Your task to perform on an android device: clear all cookies in the chrome app Image 0: 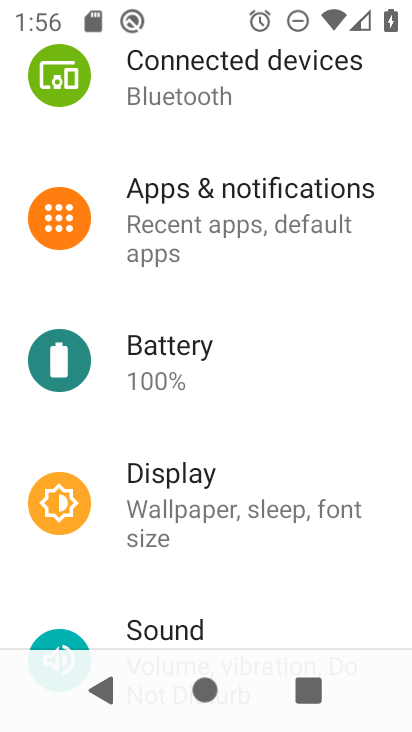
Step 0: press home button
Your task to perform on an android device: clear all cookies in the chrome app Image 1: 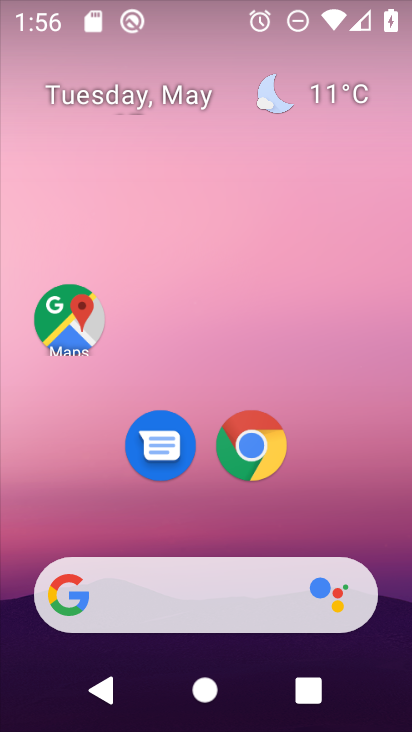
Step 1: click (270, 432)
Your task to perform on an android device: clear all cookies in the chrome app Image 2: 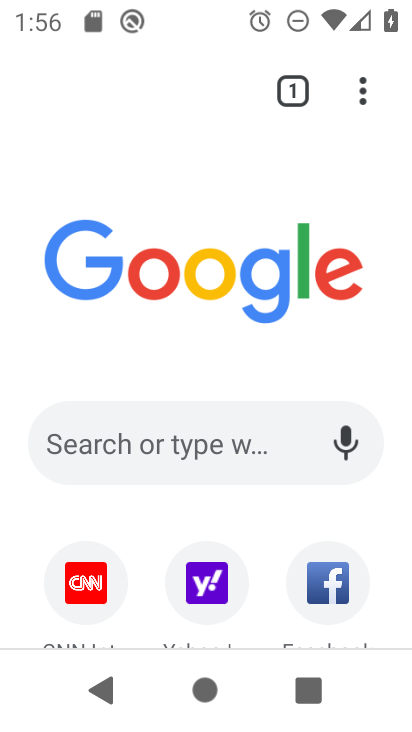
Step 2: click (357, 81)
Your task to perform on an android device: clear all cookies in the chrome app Image 3: 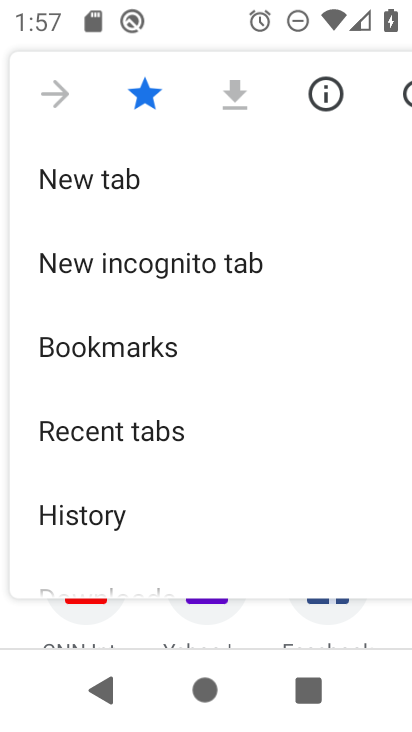
Step 3: drag from (232, 535) to (176, 224)
Your task to perform on an android device: clear all cookies in the chrome app Image 4: 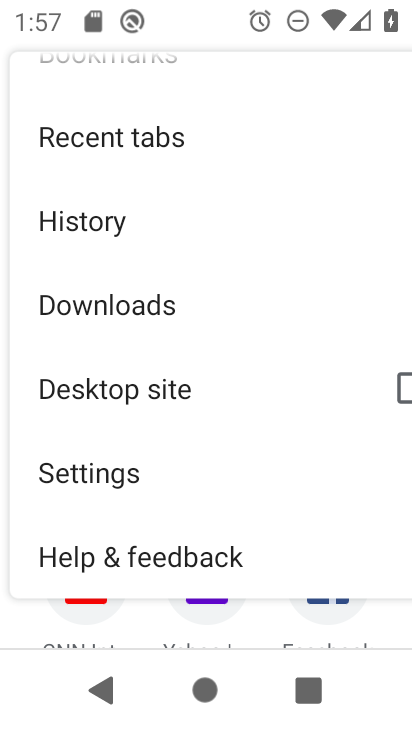
Step 4: click (191, 470)
Your task to perform on an android device: clear all cookies in the chrome app Image 5: 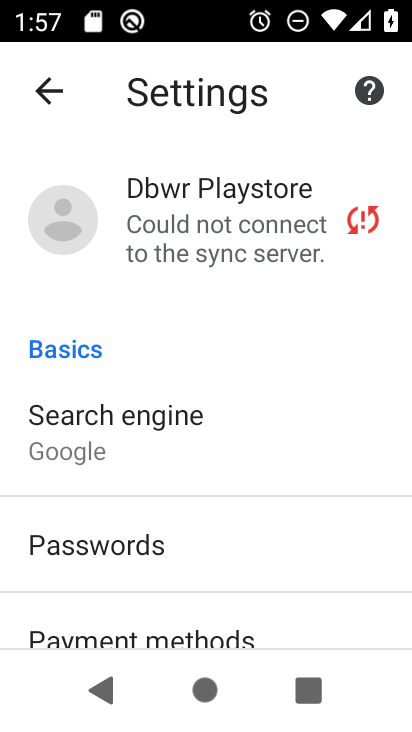
Step 5: drag from (146, 509) to (145, 25)
Your task to perform on an android device: clear all cookies in the chrome app Image 6: 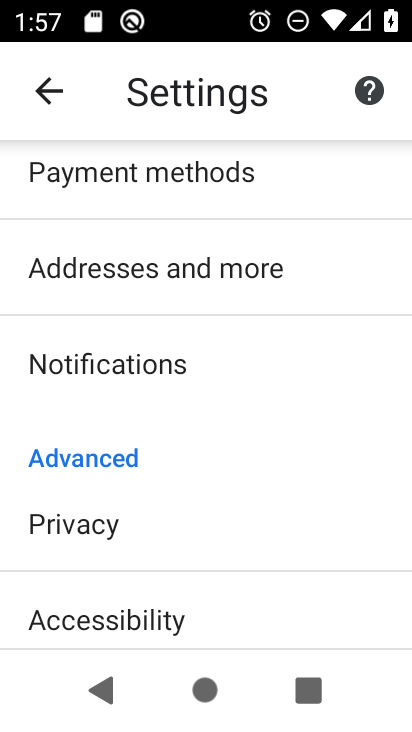
Step 6: click (155, 532)
Your task to perform on an android device: clear all cookies in the chrome app Image 7: 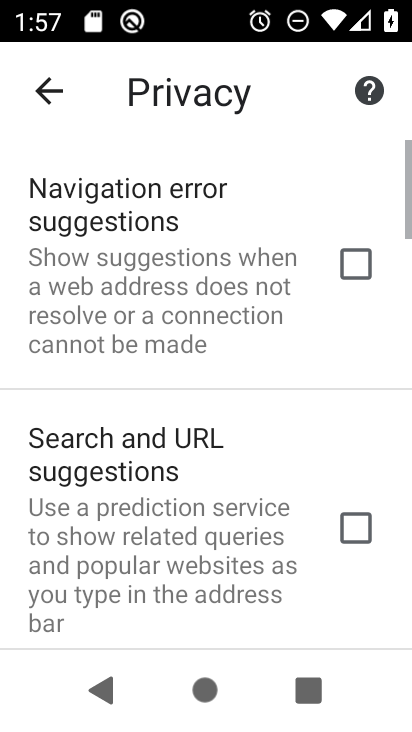
Step 7: drag from (155, 532) to (160, 32)
Your task to perform on an android device: clear all cookies in the chrome app Image 8: 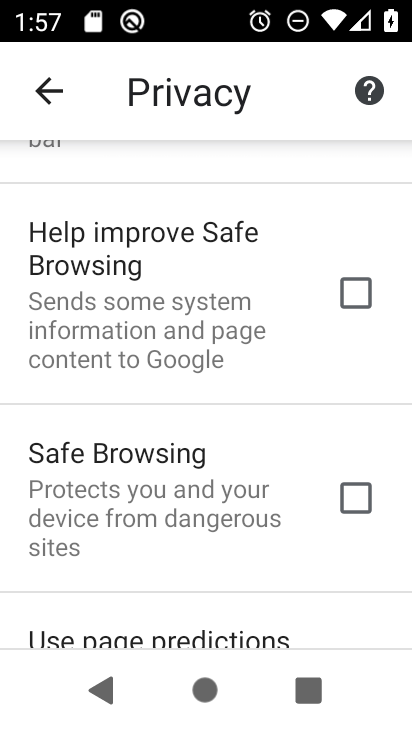
Step 8: drag from (186, 565) to (188, 0)
Your task to perform on an android device: clear all cookies in the chrome app Image 9: 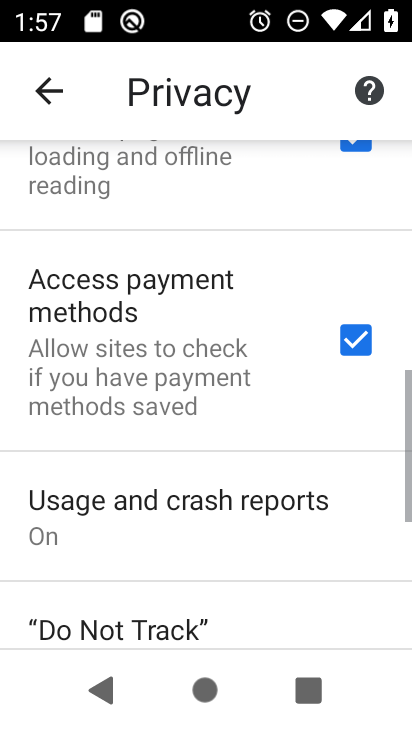
Step 9: drag from (192, 613) to (187, 252)
Your task to perform on an android device: clear all cookies in the chrome app Image 10: 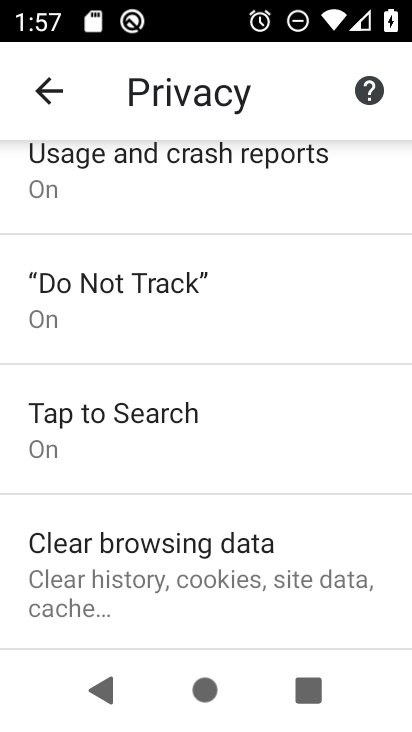
Step 10: click (186, 552)
Your task to perform on an android device: clear all cookies in the chrome app Image 11: 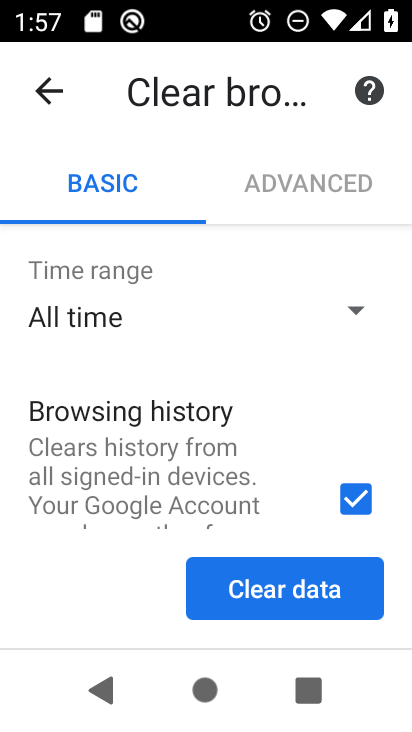
Step 11: drag from (215, 511) to (159, 291)
Your task to perform on an android device: clear all cookies in the chrome app Image 12: 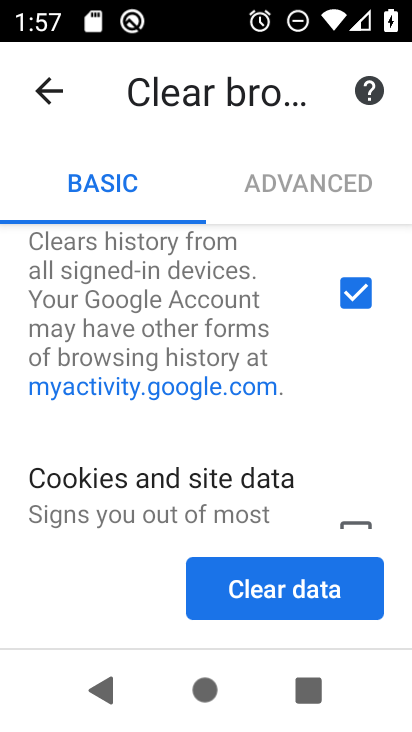
Step 12: drag from (221, 299) to (243, 437)
Your task to perform on an android device: clear all cookies in the chrome app Image 13: 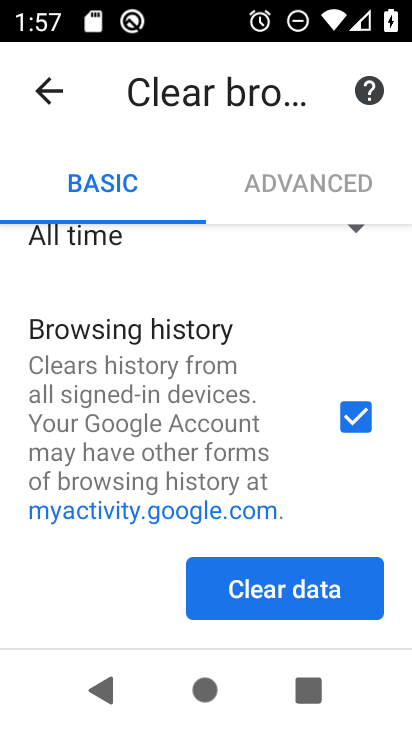
Step 13: click (345, 422)
Your task to perform on an android device: clear all cookies in the chrome app Image 14: 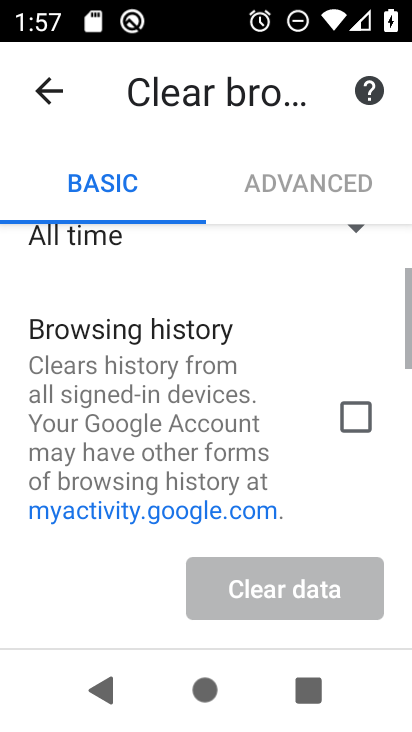
Step 14: drag from (280, 438) to (238, 139)
Your task to perform on an android device: clear all cookies in the chrome app Image 15: 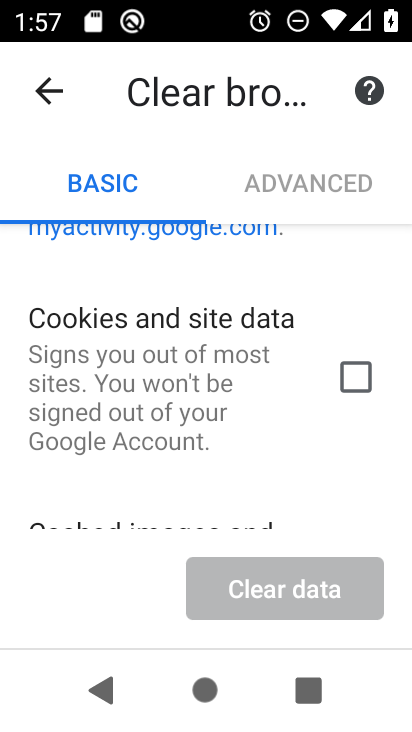
Step 15: click (363, 372)
Your task to perform on an android device: clear all cookies in the chrome app Image 16: 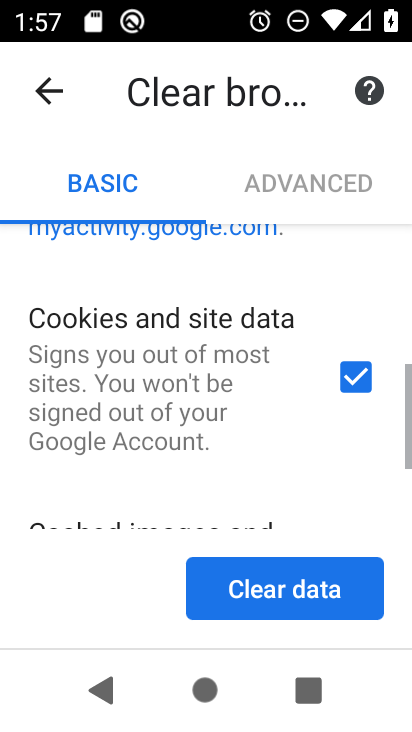
Step 16: drag from (288, 377) to (229, 128)
Your task to perform on an android device: clear all cookies in the chrome app Image 17: 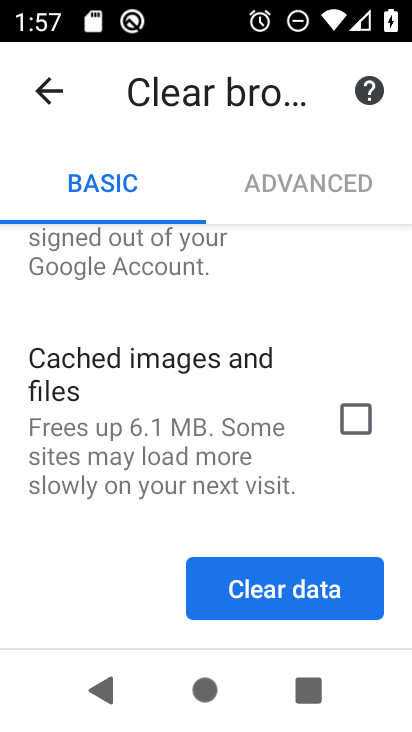
Step 17: click (234, 594)
Your task to perform on an android device: clear all cookies in the chrome app Image 18: 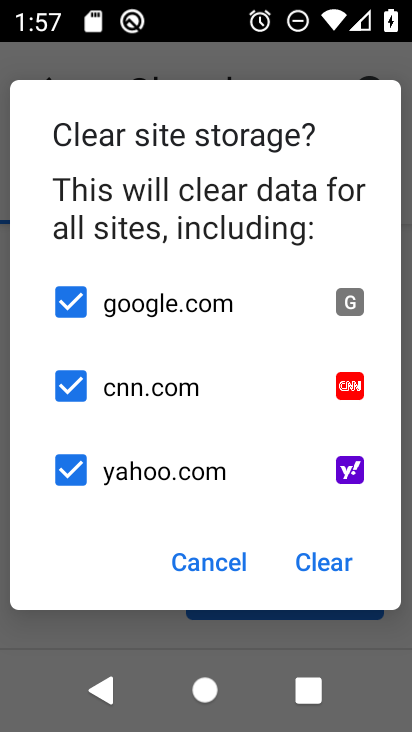
Step 18: click (303, 564)
Your task to perform on an android device: clear all cookies in the chrome app Image 19: 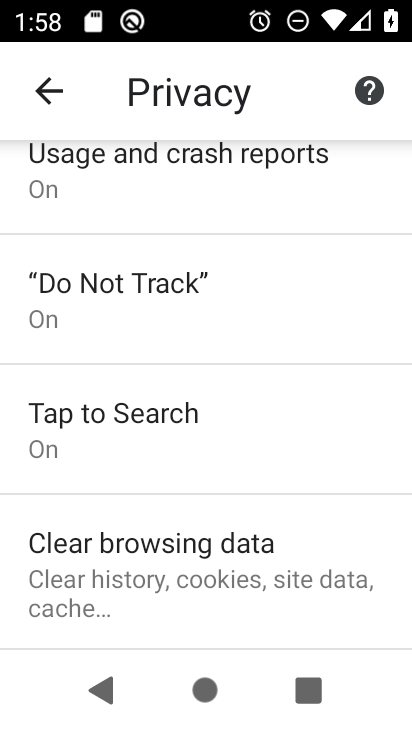
Step 19: task complete